Your task to perform on an android device: toggle wifi Image 0: 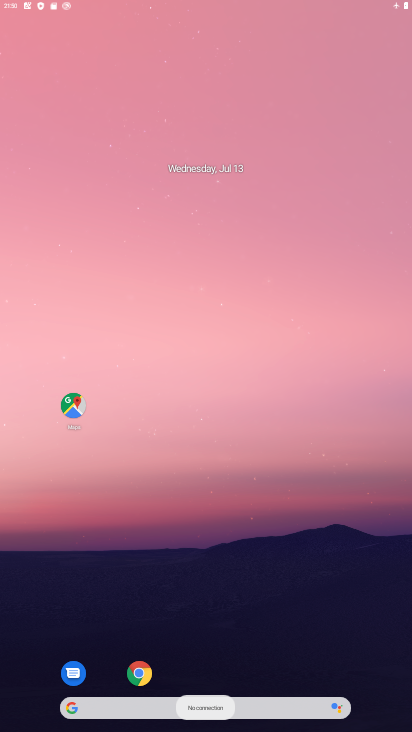
Step 0: click (232, 48)
Your task to perform on an android device: toggle wifi Image 1: 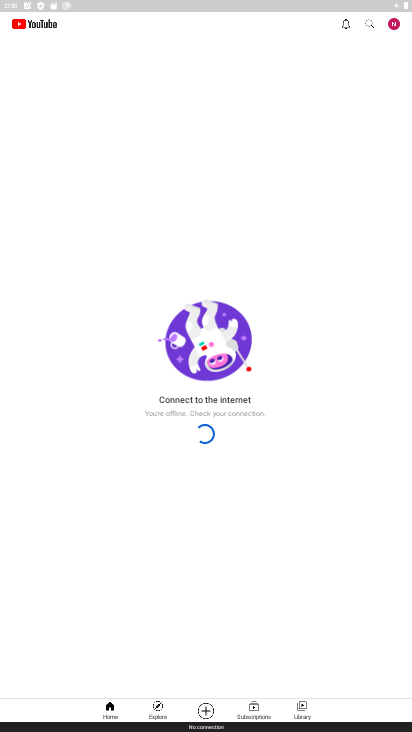
Step 1: press home button
Your task to perform on an android device: toggle wifi Image 2: 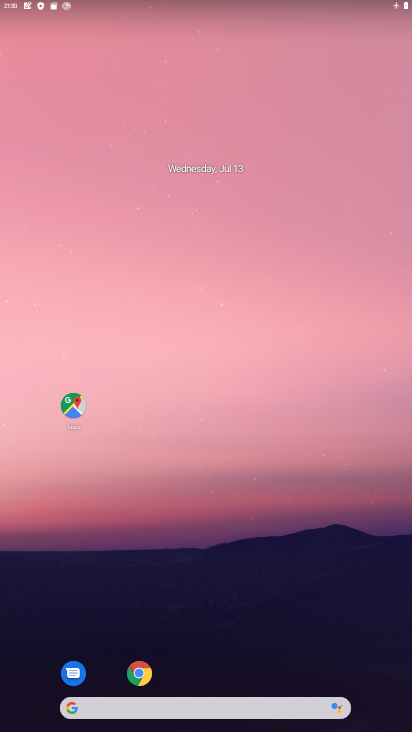
Step 2: drag from (196, 628) to (196, 118)
Your task to perform on an android device: toggle wifi Image 3: 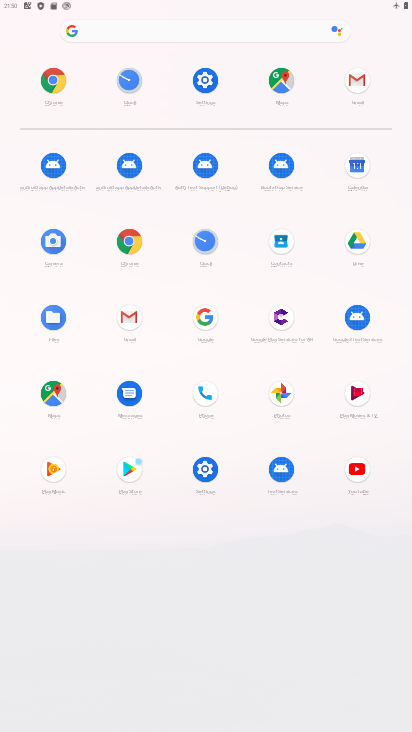
Step 3: click (210, 85)
Your task to perform on an android device: toggle wifi Image 4: 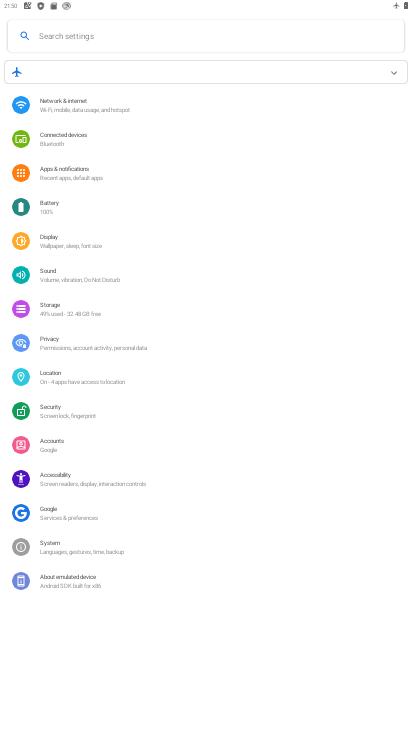
Step 4: click (112, 108)
Your task to perform on an android device: toggle wifi Image 5: 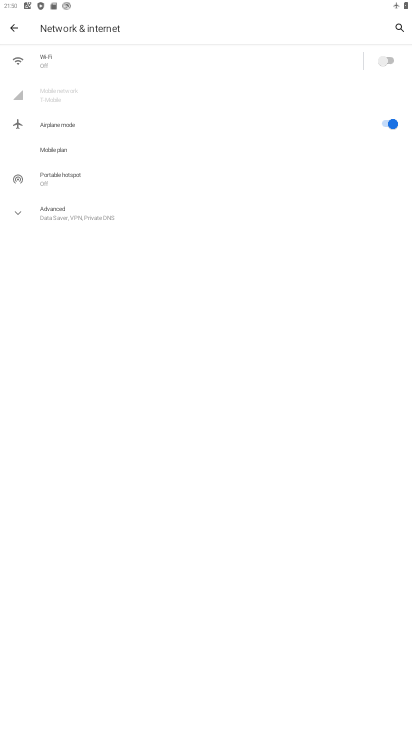
Step 5: click (386, 55)
Your task to perform on an android device: toggle wifi Image 6: 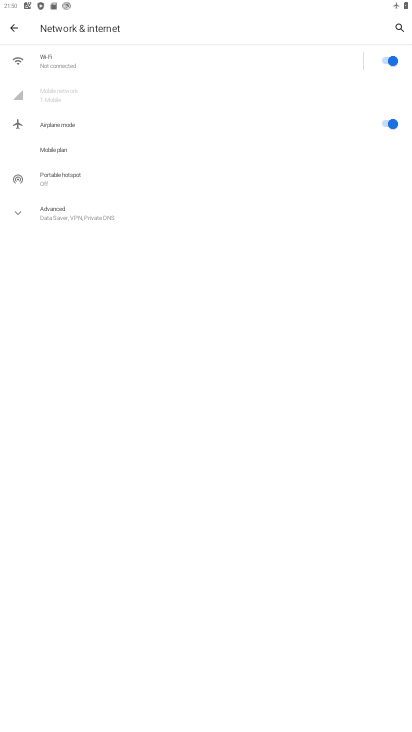
Step 6: task complete